Your task to perform on an android device: Open CNN.com Image 0: 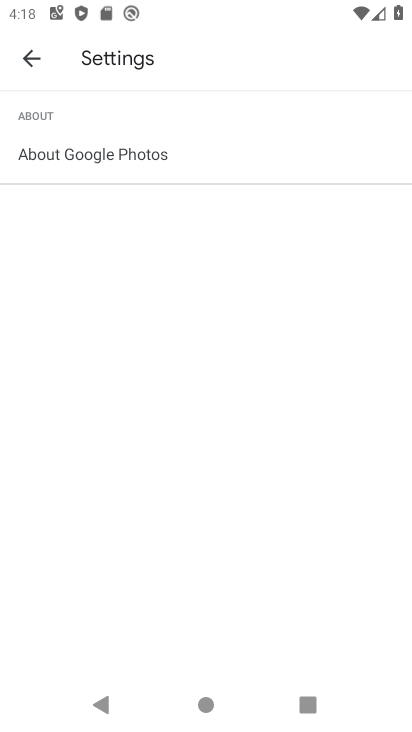
Step 0: click (20, 39)
Your task to perform on an android device: Open CNN.com Image 1: 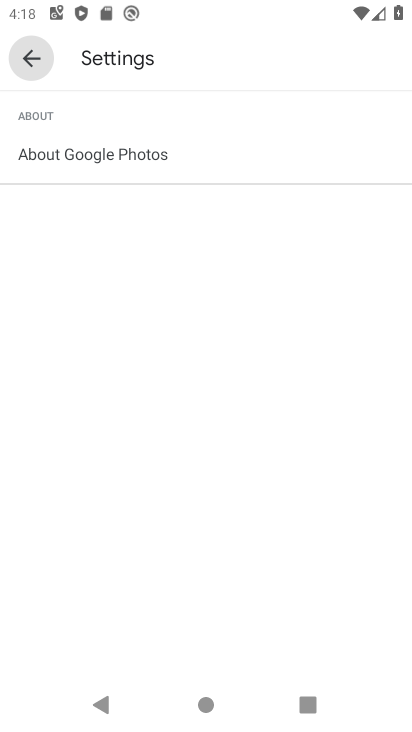
Step 1: click (21, 47)
Your task to perform on an android device: Open CNN.com Image 2: 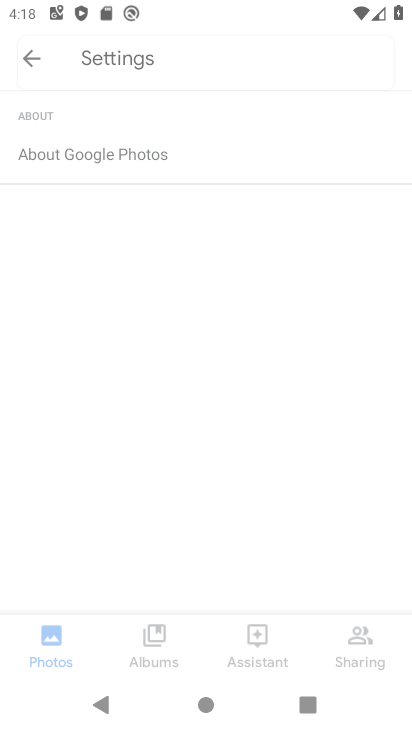
Step 2: click (25, 55)
Your task to perform on an android device: Open CNN.com Image 3: 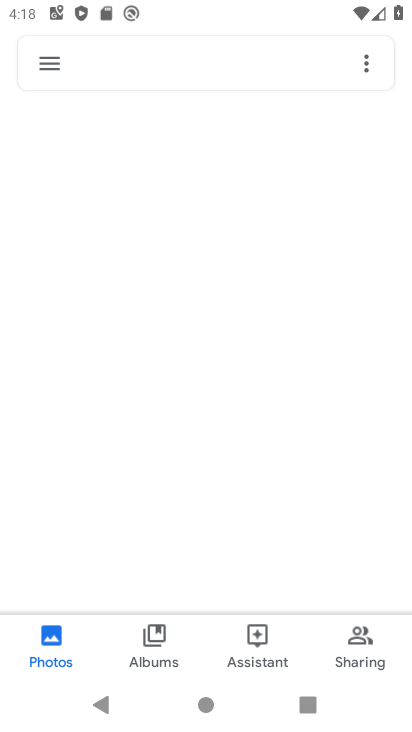
Step 3: click (18, 71)
Your task to perform on an android device: Open CNN.com Image 4: 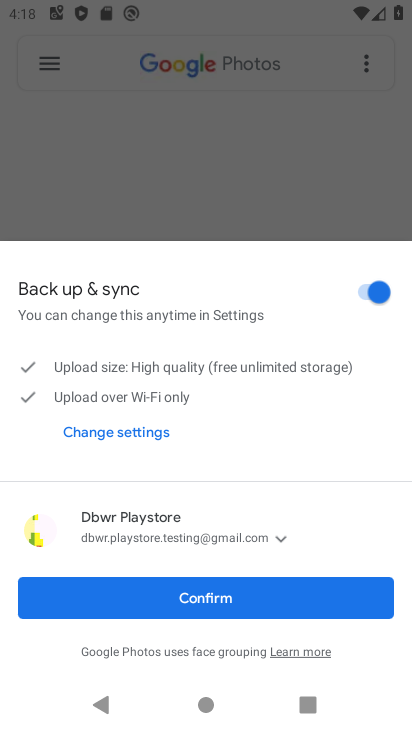
Step 4: press home button
Your task to perform on an android device: Open CNN.com Image 5: 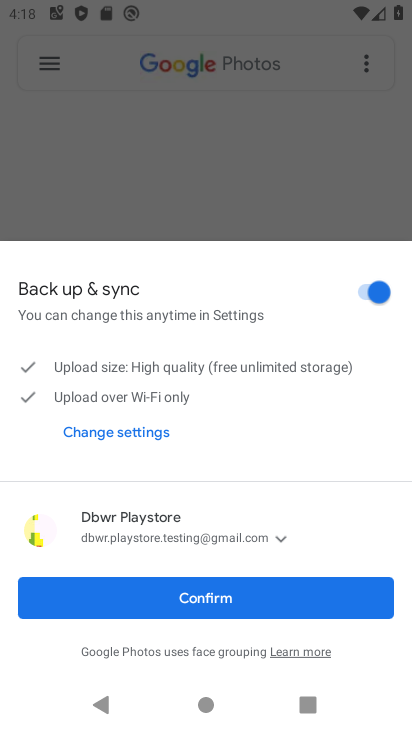
Step 5: press home button
Your task to perform on an android device: Open CNN.com Image 6: 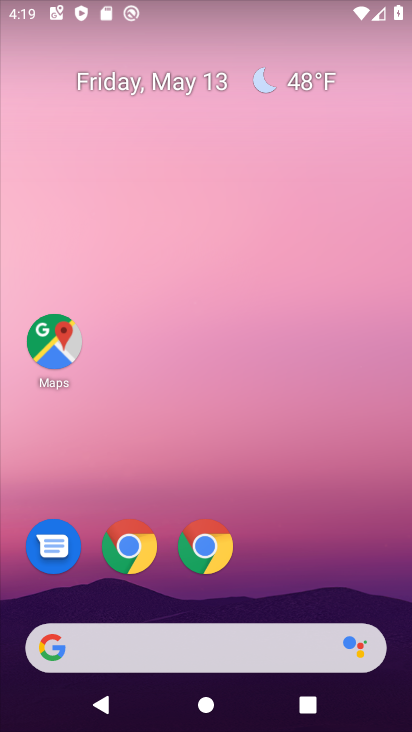
Step 6: drag from (285, 596) to (178, 21)
Your task to perform on an android device: Open CNN.com Image 7: 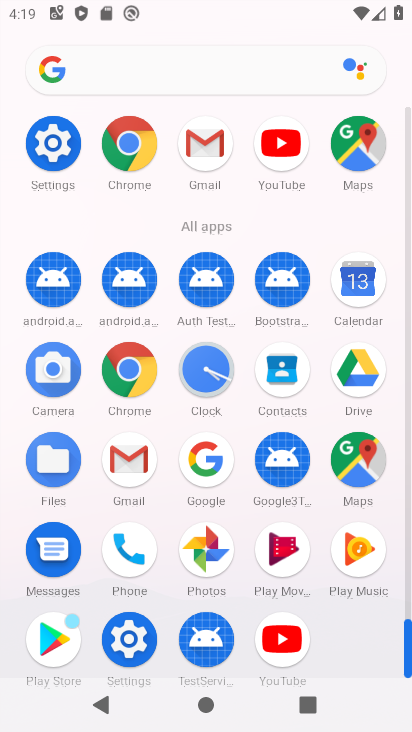
Step 7: click (121, 144)
Your task to perform on an android device: Open CNN.com Image 8: 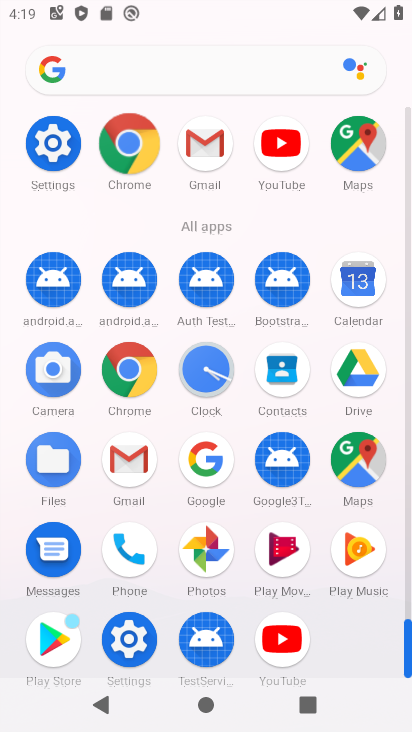
Step 8: click (121, 144)
Your task to perform on an android device: Open CNN.com Image 9: 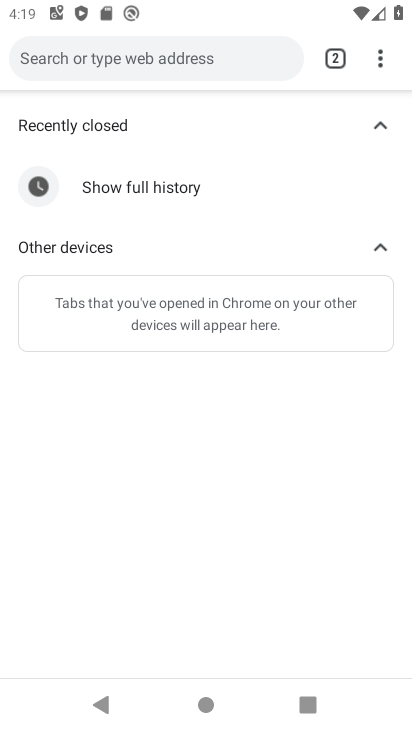
Step 9: click (108, 53)
Your task to perform on an android device: Open CNN.com Image 10: 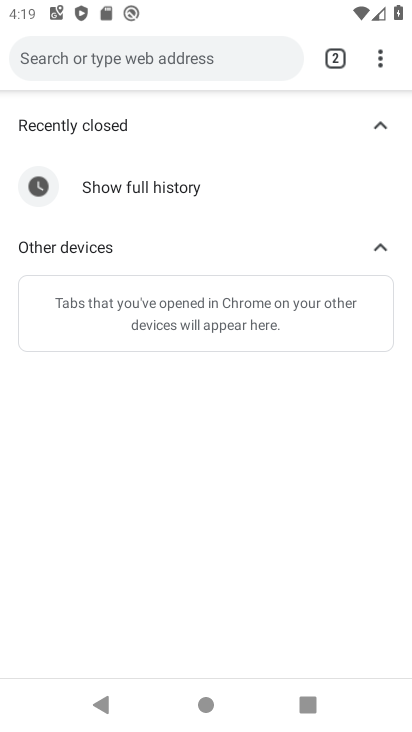
Step 10: click (123, 65)
Your task to perform on an android device: Open CNN.com Image 11: 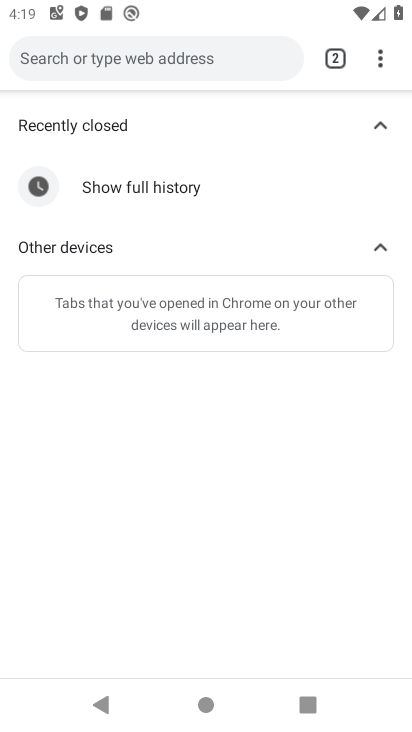
Step 11: click (123, 67)
Your task to perform on an android device: Open CNN.com Image 12: 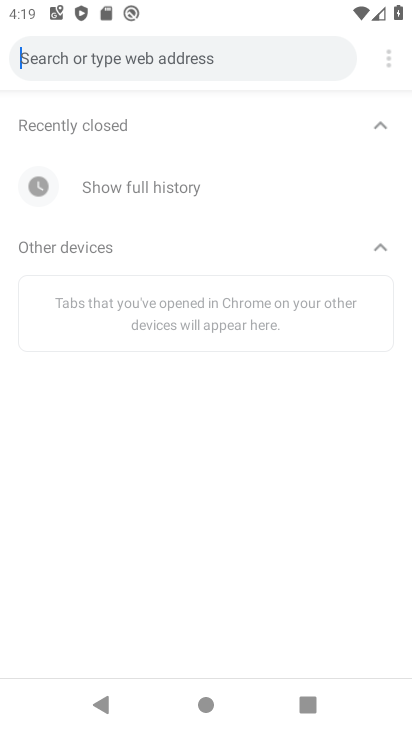
Step 12: click (122, 77)
Your task to perform on an android device: Open CNN.com Image 13: 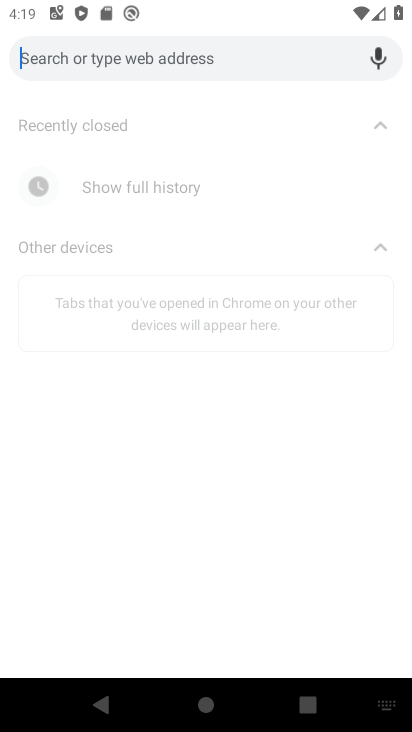
Step 13: type "cnn.com"
Your task to perform on an android device: Open CNN.com Image 14: 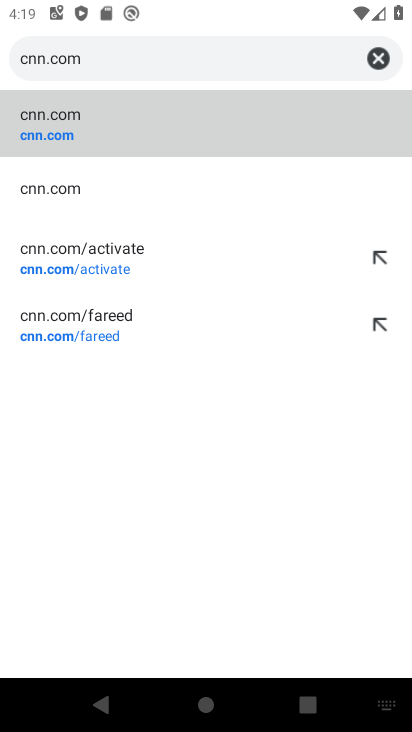
Step 14: click (40, 123)
Your task to perform on an android device: Open CNN.com Image 15: 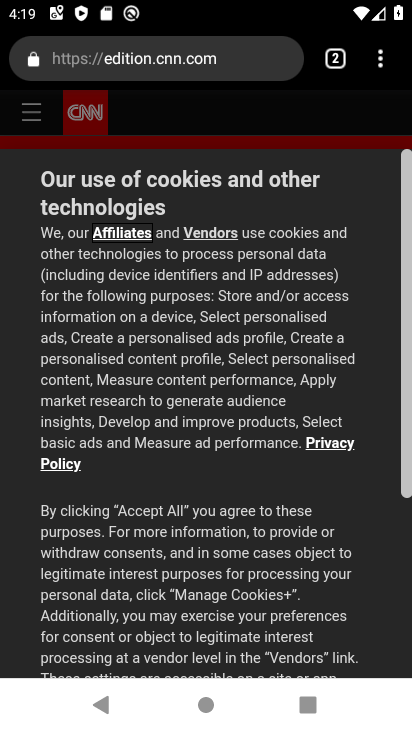
Step 15: task complete